Your task to perform on an android device: add a contact Image 0: 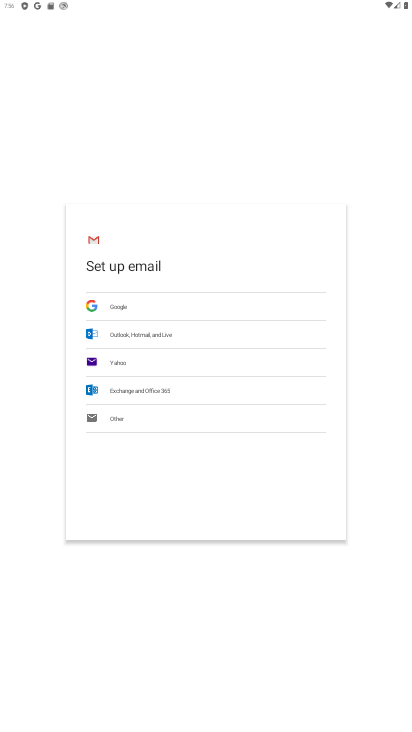
Step 0: press home button
Your task to perform on an android device: add a contact Image 1: 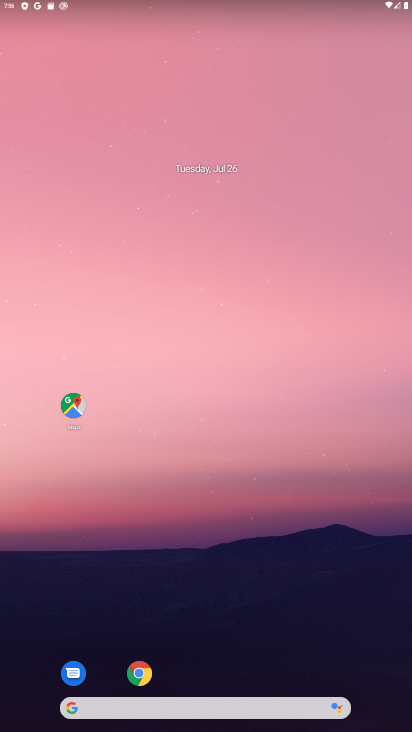
Step 1: drag from (215, 636) to (223, 134)
Your task to perform on an android device: add a contact Image 2: 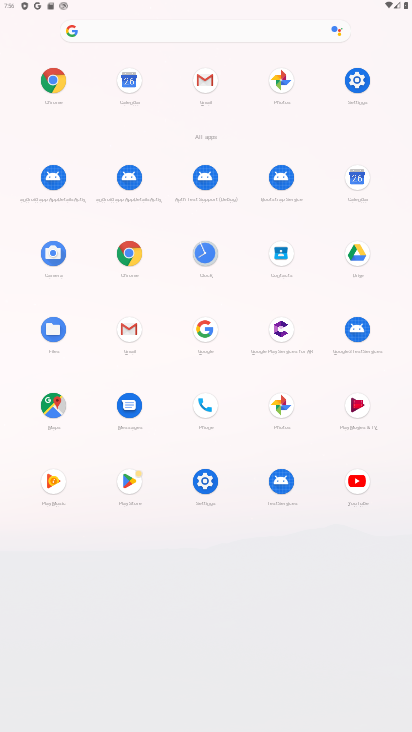
Step 2: click (272, 253)
Your task to perform on an android device: add a contact Image 3: 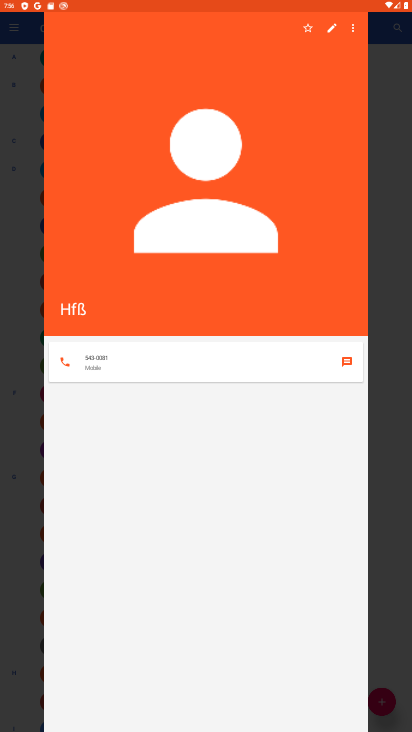
Step 3: press back button
Your task to perform on an android device: add a contact Image 4: 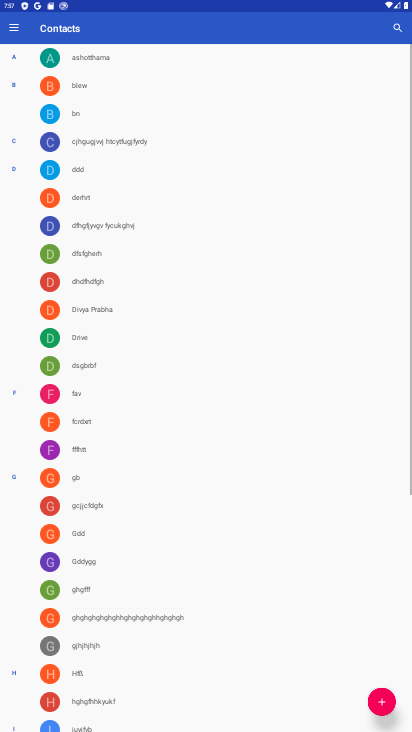
Step 4: click (389, 697)
Your task to perform on an android device: add a contact Image 5: 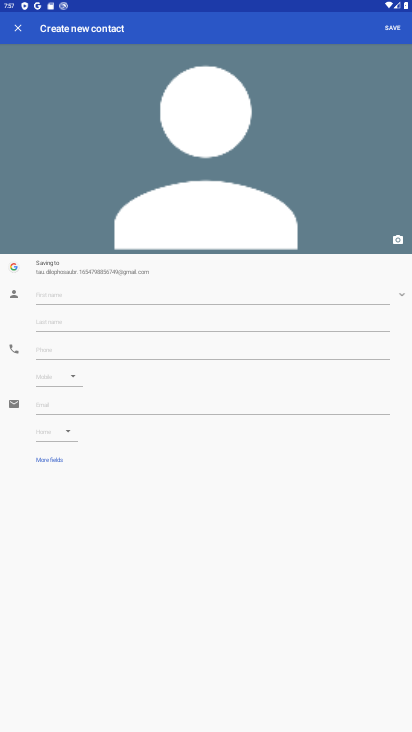
Step 5: click (75, 294)
Your task to perform on an android device: add a contact Image 6: 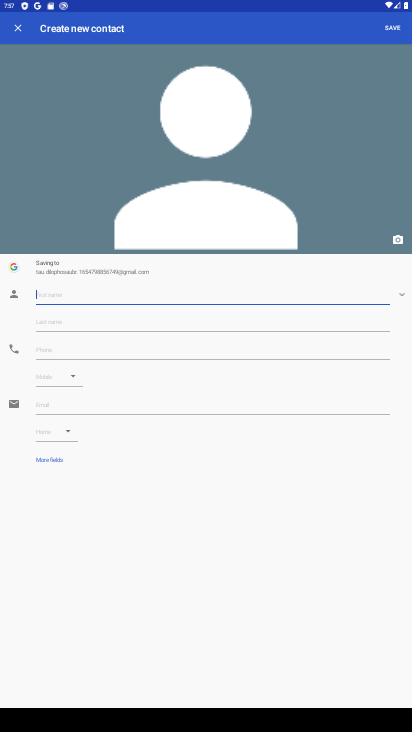
Step 6: type "dgdg"
Your task to perform on an android device: add a contact Image 7: 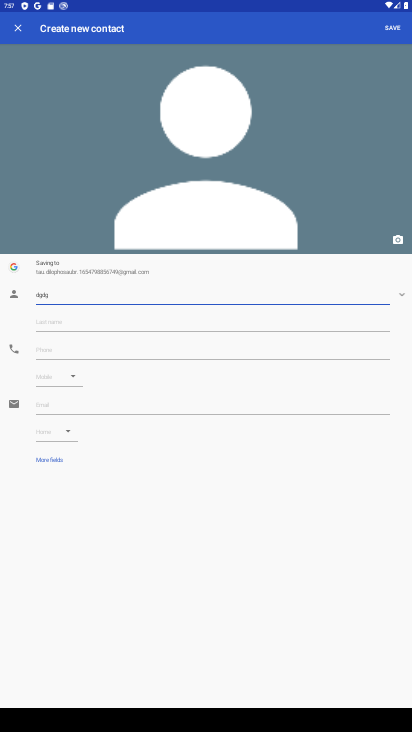
Step 7: click (57, 351)
Your task to perform on an android device: add a contact Image 8: 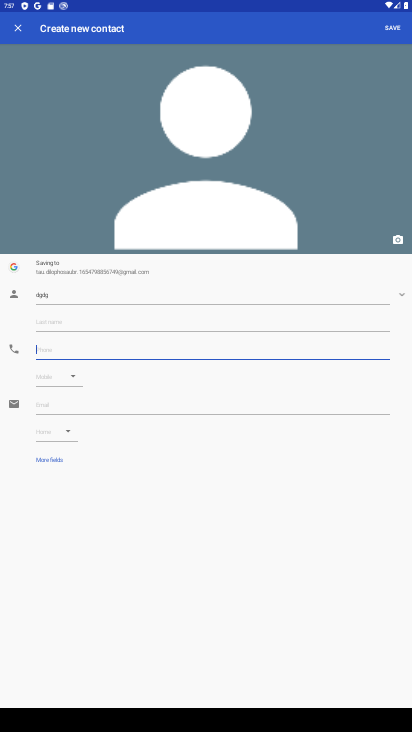
Step 8: type "6856746455"
Your task to perform on an android device: add a contact Image 9: 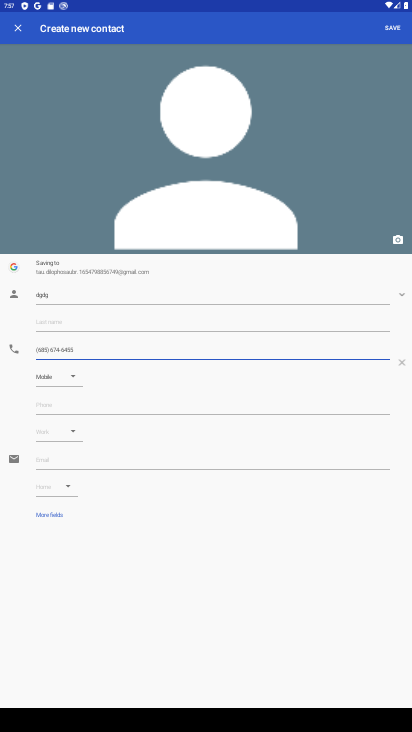
Step 9: click (395, 27)
Your task to perform on an android device: add a contact Image 10: 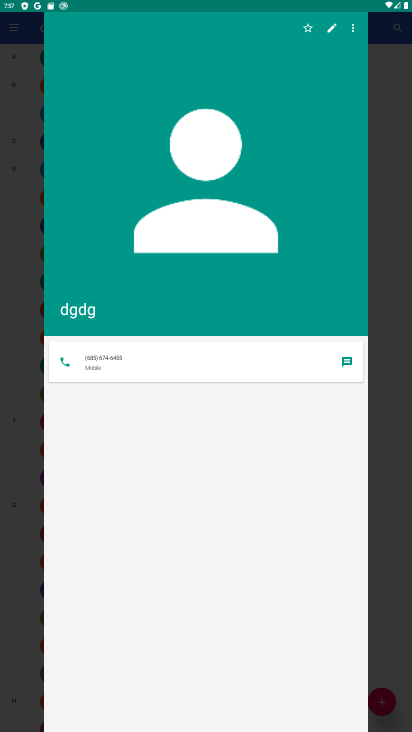
Step 10: task complete